Your task to perform on an android device: open app "PUBG MOBILE" (install if not already installed) and enter user name: "phenomenologically@gmail.com" and password: "artillery" Image 0: 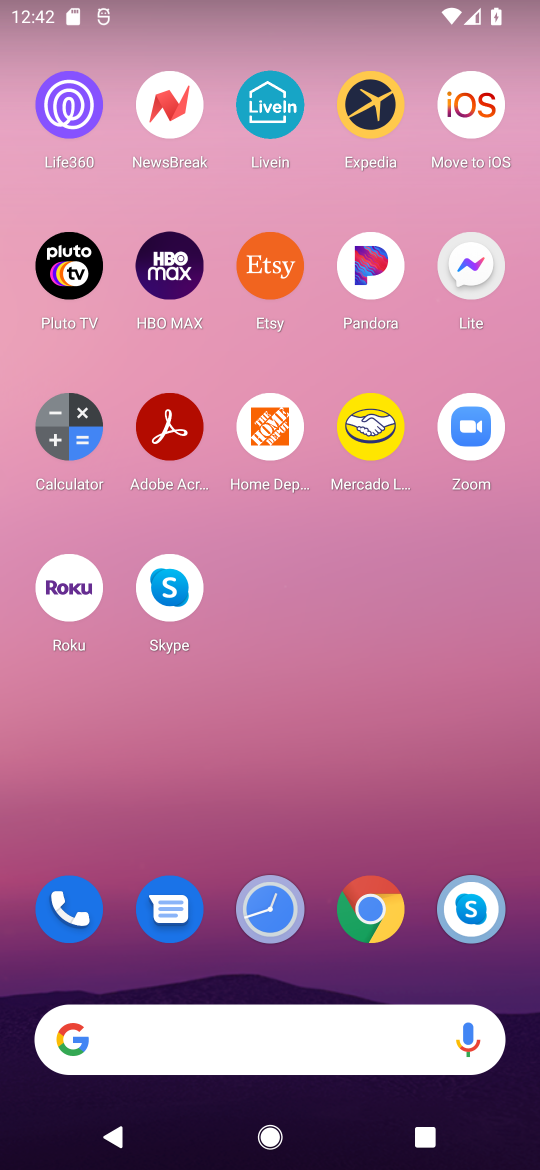
Step 0: drag from (251, 815) to (409, 88)
Your task to perform on an android device: open app "PUBG MOBILE" (install if not already installed) and enter user name: "phenomenologically@gmail.com" and password: "artillery" Image 1: 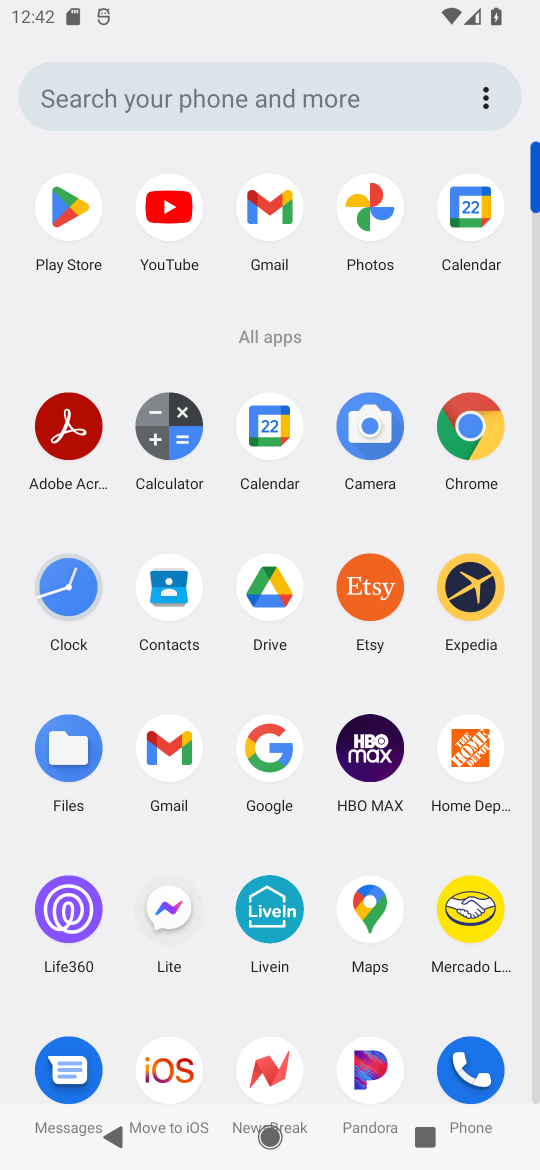
Step 1: click (62, 193)
Your task to perform on an android device: open app "PUBG MOBILE" (install if not already installed) and enter user name: "phenomenologically@gmail.com" and password: "artillery" Image 2: 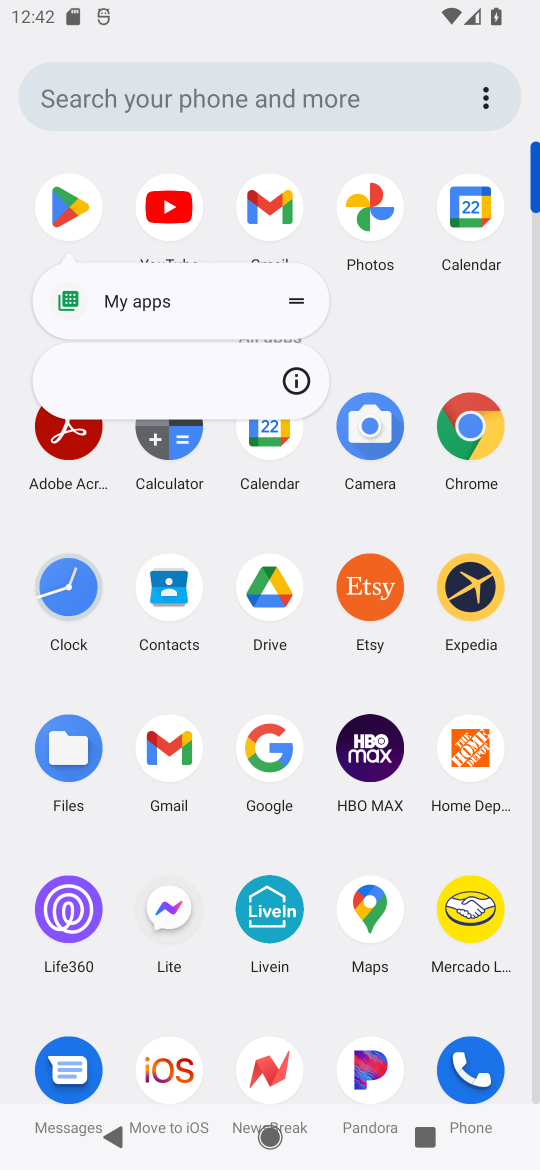
Step 2: click (65, 212)
Your task to perform on an android device: open app "PUBG MOBILE" (install if not already installed) and enter user name: "phenomenologically@gmail.com" and password: "artillery" Image 3: 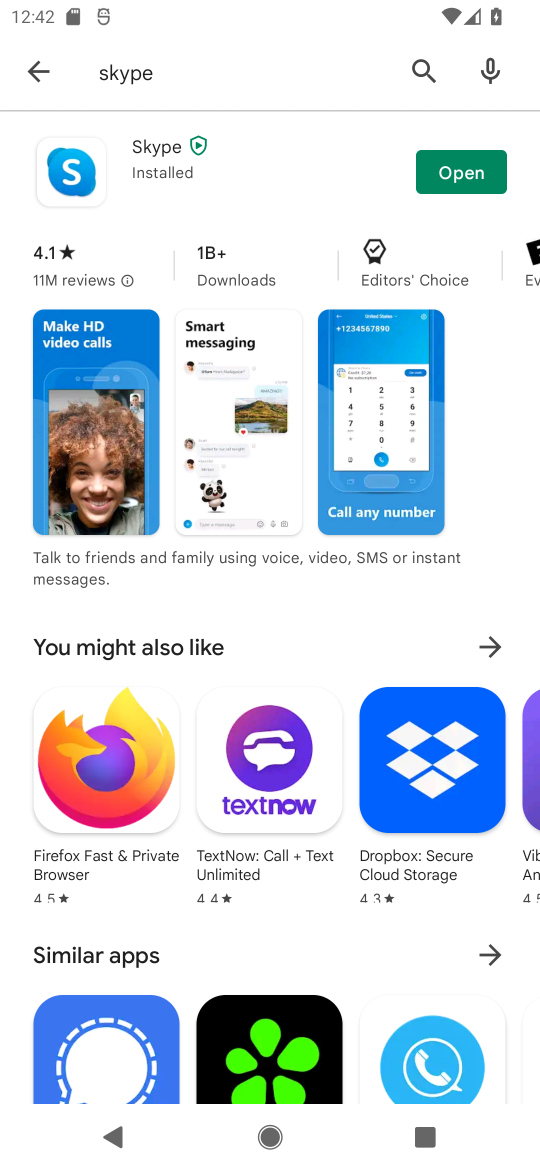
Step 3: click (419, 68)
Your task to perform on an android device: open app "PUBG MOBILE" (install if not already installed) and enter user name: "phenomenologically@gmail.com" and password: "artillery" Image 4: 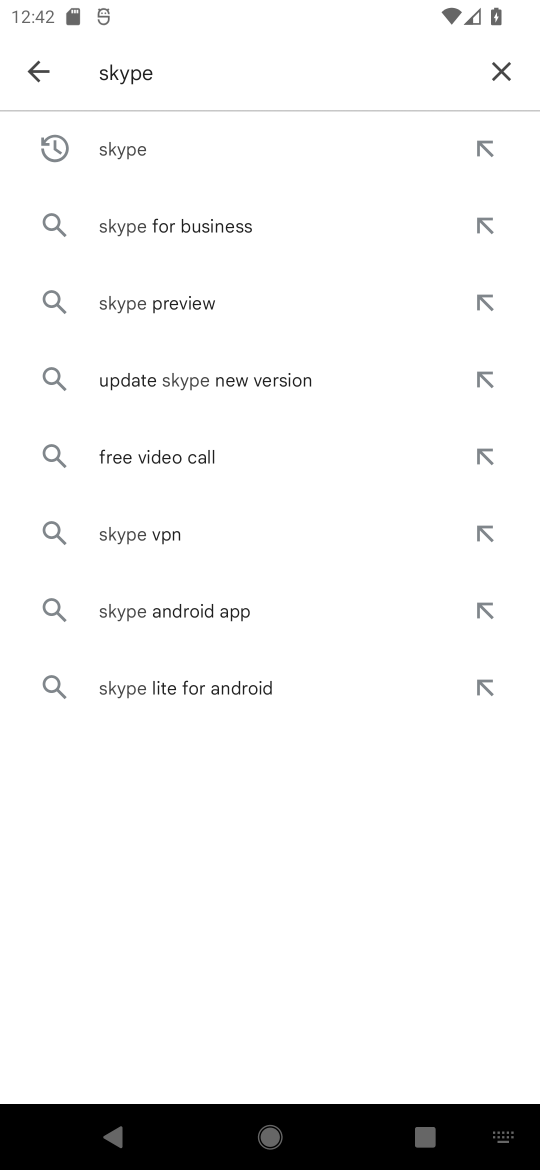
Step 4: click (500, 57)
Your task to perform on an android device: open app "PUBG MOBILE" (install if not already installed) and enter user name: "phenomenologically@gmail.com" and password: "artillery" Image 5: 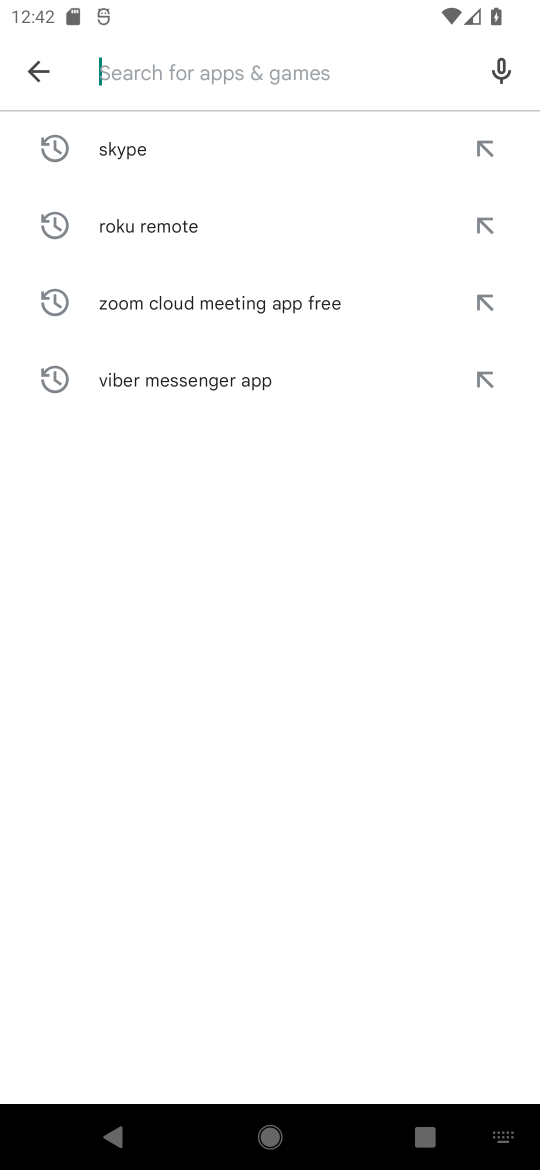
Step 5: click (161, 79)
Your task to perform on an android device: open app "PUBG MOBILE" (install if not already installed) and enter user name: "phenomenologically@gmail.com" and password: "artillery" Image 6: 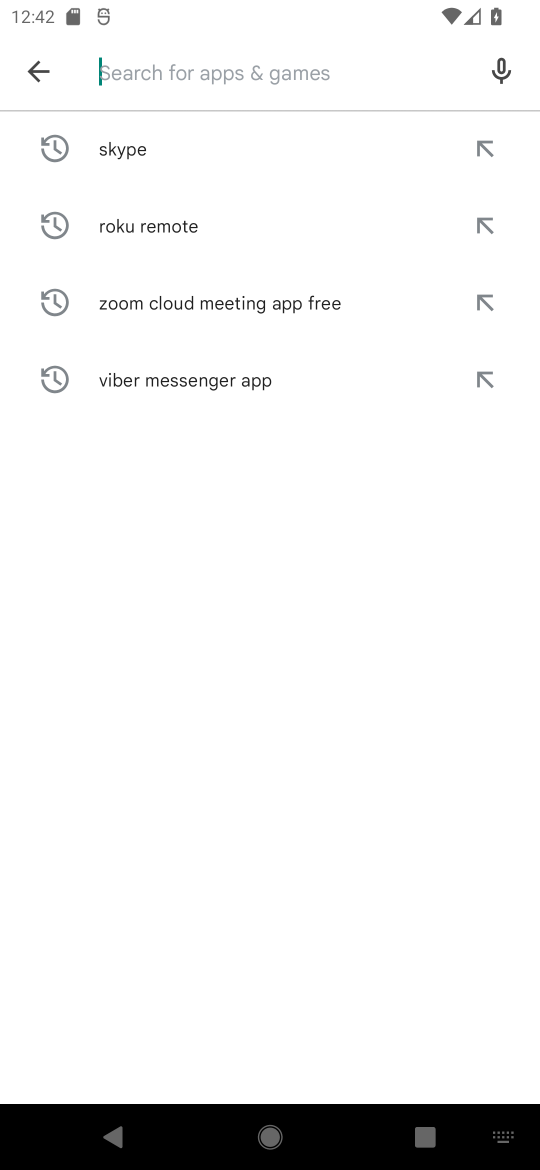
Step 6: type "PUBG MOBILE"
Your task to perform on an android device: open app "PUBG MOBILE" (install if not already installed) and enter user name: "phenomenologically@gmail.com" and password: "artillery" Image 7: 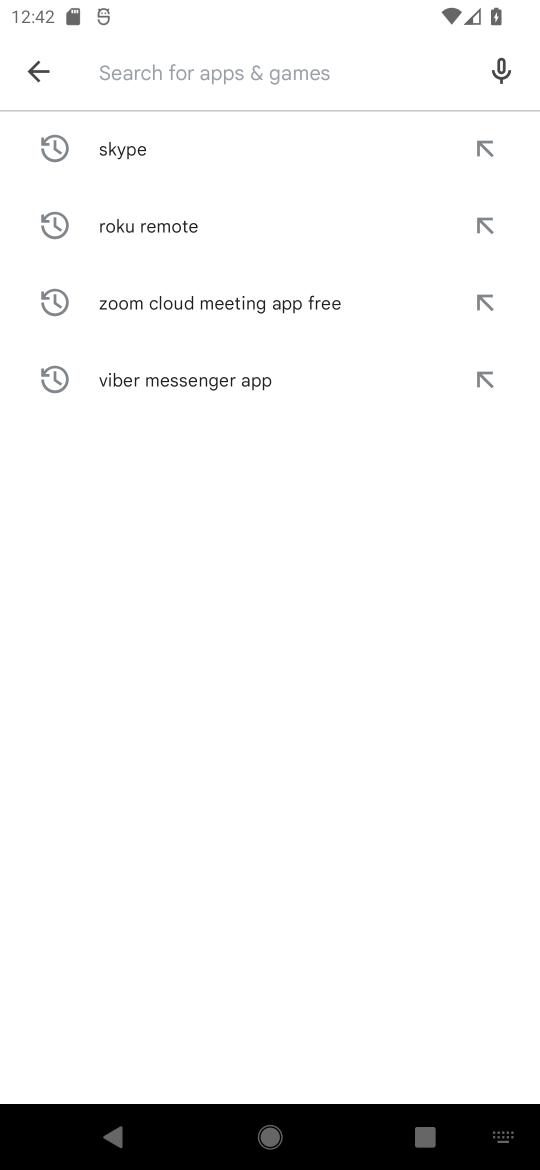
Step 7: click (404, 739)
Your task to perform on an android device: open app "PUBG MOBILE" (install if not already installed) and enter user name: "phenomenologically@gmail.com" and password: "artillery" Image 8: 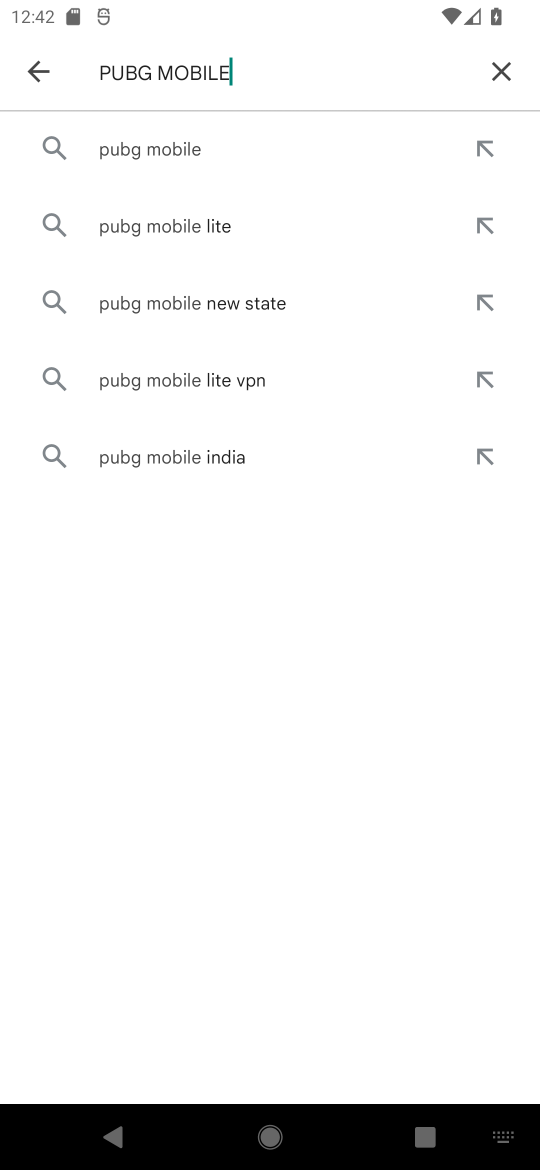
Step 8: click (193, 136)
Your task to perform on an android device: open app "PUBG MOBILE" (install if not already installed) and enter user name: "phenomenologically@gmail.com" and password: "artillery" Image 9: 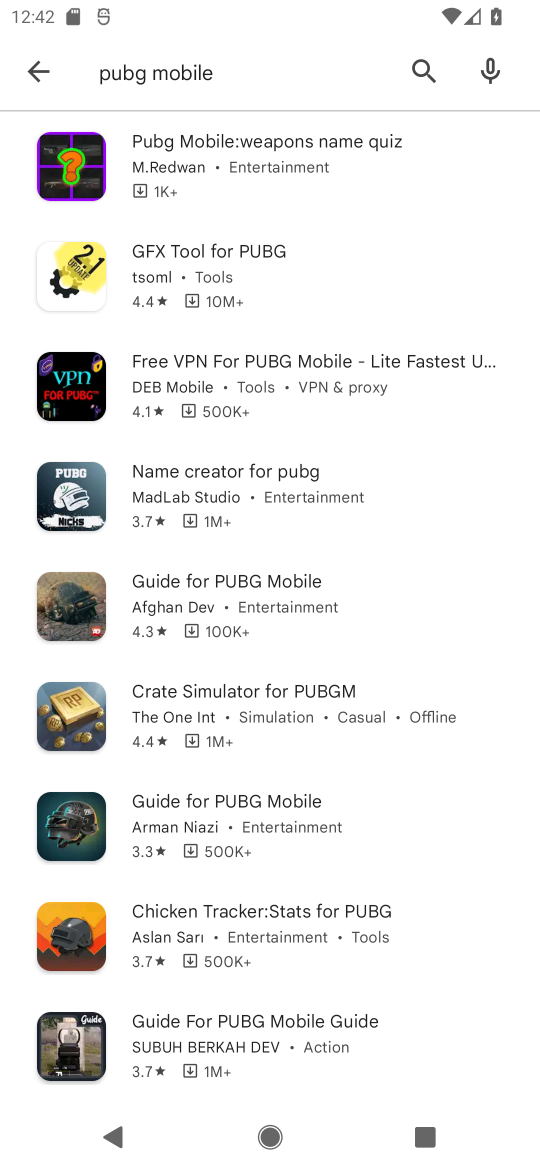
Step 9: task complete